Your task to perform on an android device: Go to accessibility settings Image 0: 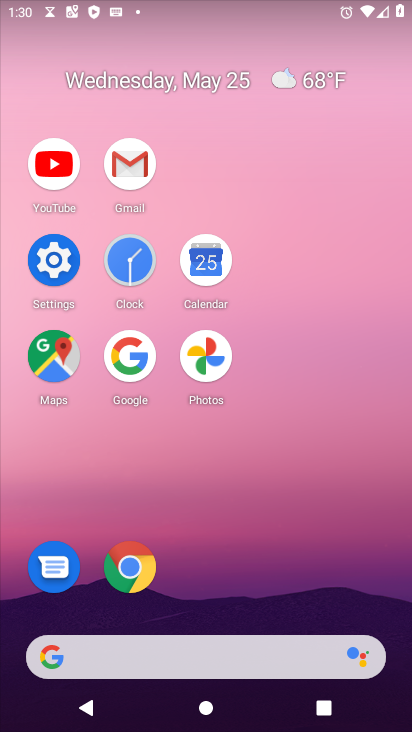
Step 0: click (62, 264)
Your task to perform on an android device: Go to accessibility settings Image 1: 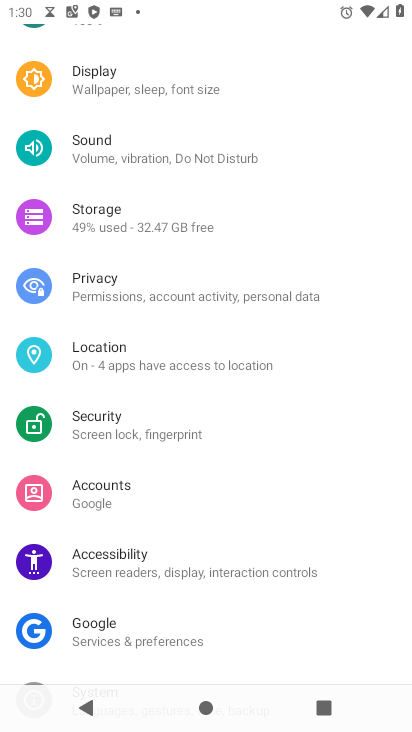
Step 1: click (227, 571)
Your task to perform on an android device: Go to accessibility settings Image 2: 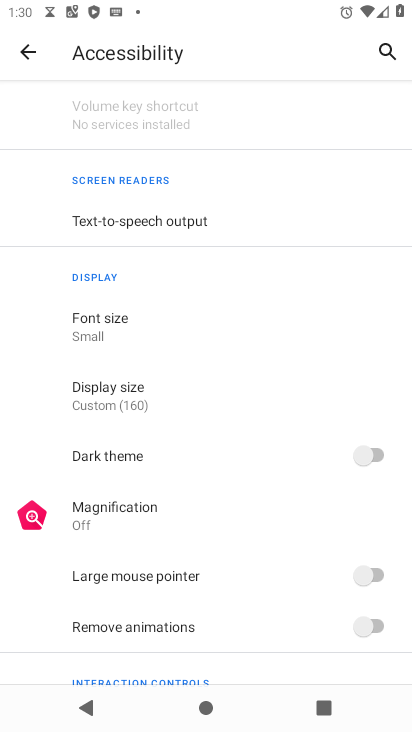
Step 2: task complete